Your task to perform on an android device: turn off notifications in google photos Image 0: 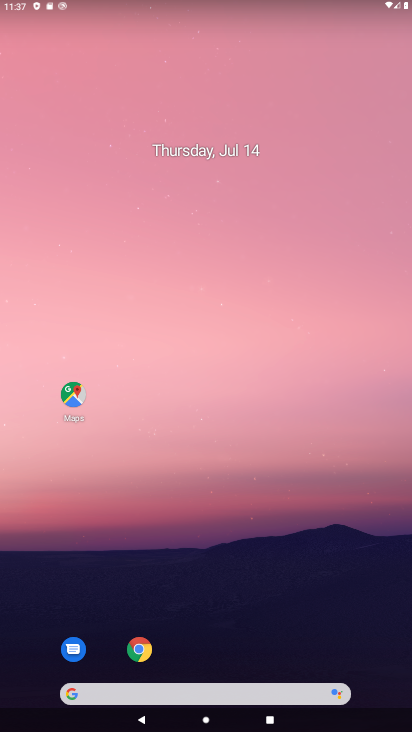
Step 0: drag from (207, 664) to (221, 208)
Your task to perform on an android device: turn off notifications in google photos Image 1: 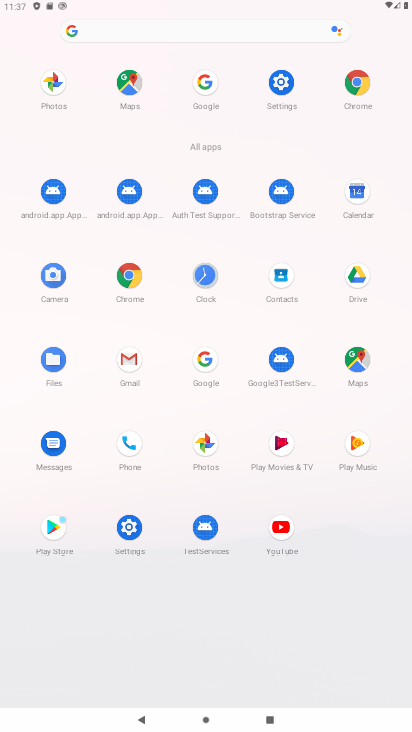
Step 1: click (210, 434)
Your task to perform on an android device: turn off notifications in google photos Image 2: 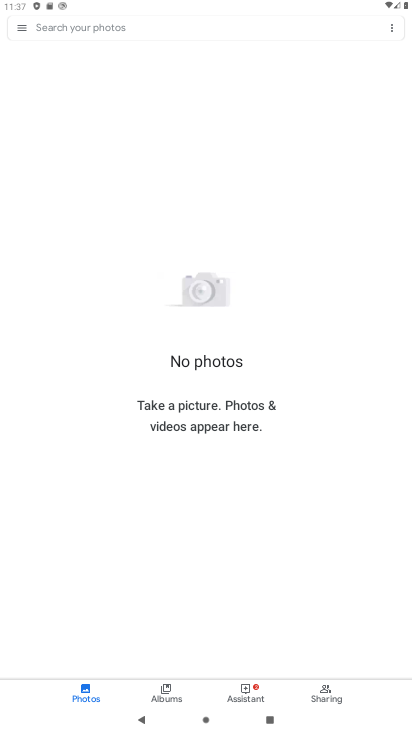
Step 2: click (17, 25)
Your task to perform on an android device: turn off notifications in google photos Image 3: 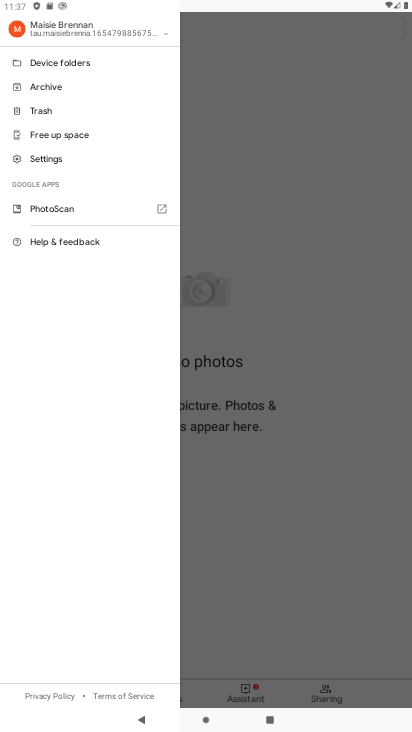
Step 3: click (58, 162)
Your task to perform on an android device: turn off notifications in google photos Image 4: 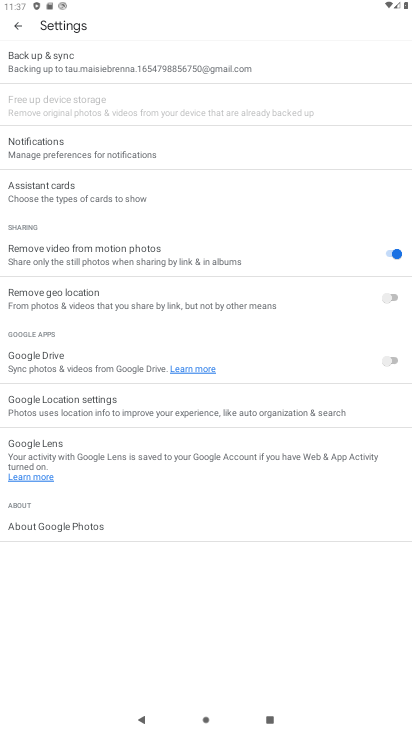
Step 4: click (62, 149)
Your task to perform on an android device: turn off notifications in google photos Image 5: 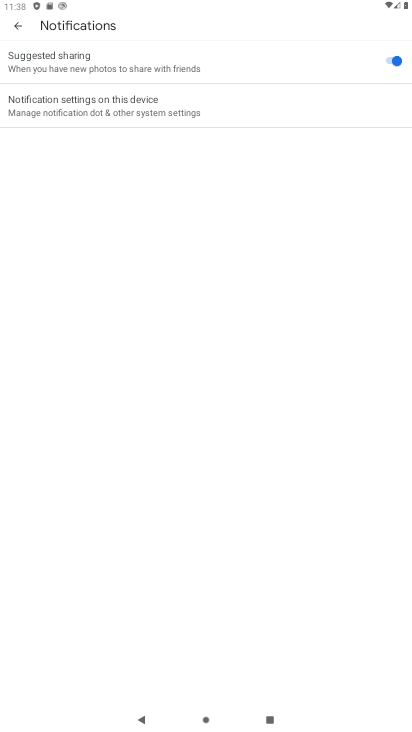
Step 5: click (374, 92)
Your task to perform on an android device: turn off notifications in google photos Image 6: 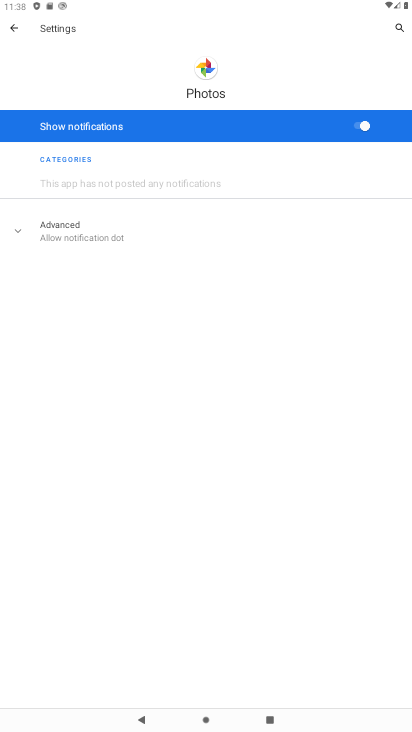
Step 6: click (359, 124)
Your task to perform on an android device: turn off notifications in google photos Image 7: 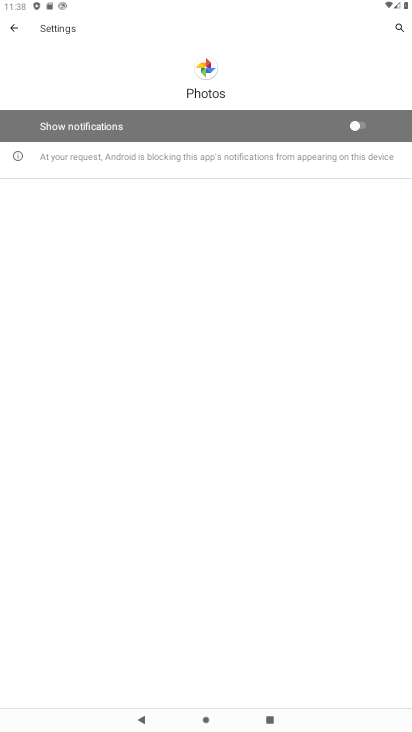
Step 7: task complete